Your task to perform on an android device: Search for 4k TVs on Best Buy. Image 0: 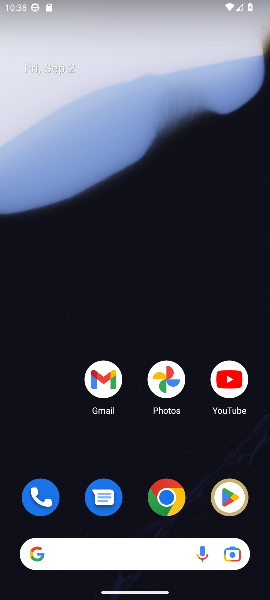
Step 0: drag from (125, 512) to (139, 25)
Your task to perform on an android device: Search for 4k TVs on Best Buy. Image 1: 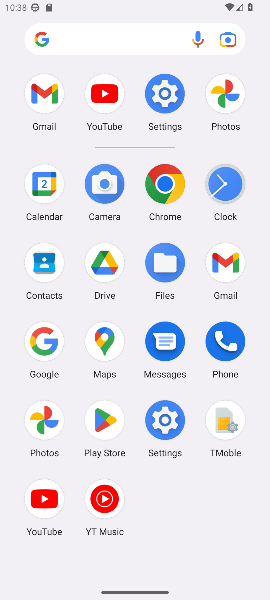
Step 1: click (40, 341)
Your task to perform on an android device: Search for 4k TVs on Best Buy. Image 2: 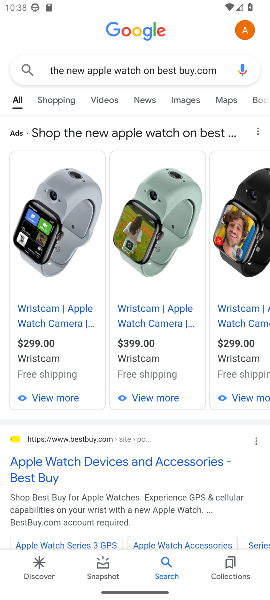
Step 2: click (212, 65)
Your task to perform on an android device: Search for 4k TVs on Best Buy. Image 3: 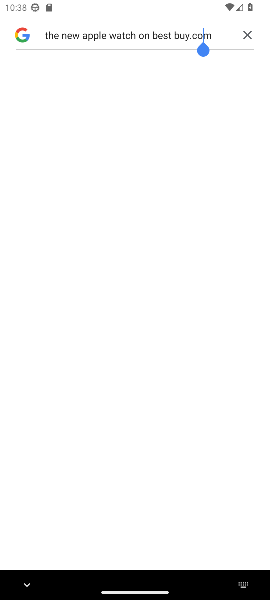
Step 3: click (245, 35)
Your task to perform on an android device: Search for 4k TVs on Best Buy. Image 4: 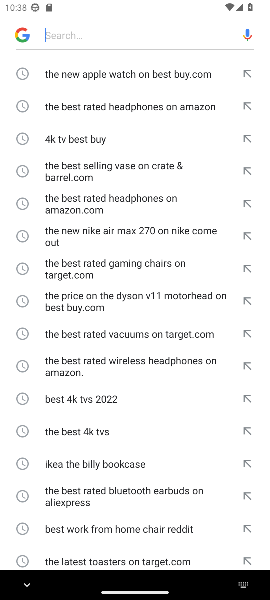
Step 4: type "4k TVs on Best Buy"
Your task to perform on an android device: Search for 4k TVs on Best Buy. Image 5: 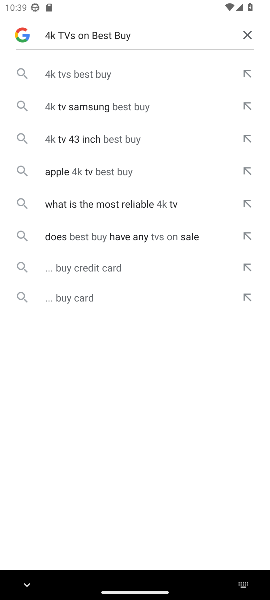
Step 5: click (75, 74)
Your task to perform on an android device: Search for 4k TVs on Best Buy. Image 6: 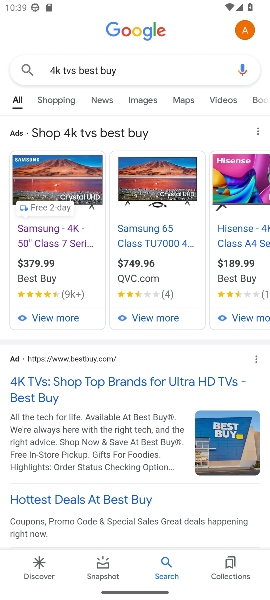
Step 6: task complete